Your task to perform on an android device: Open privacy settings Image 0: 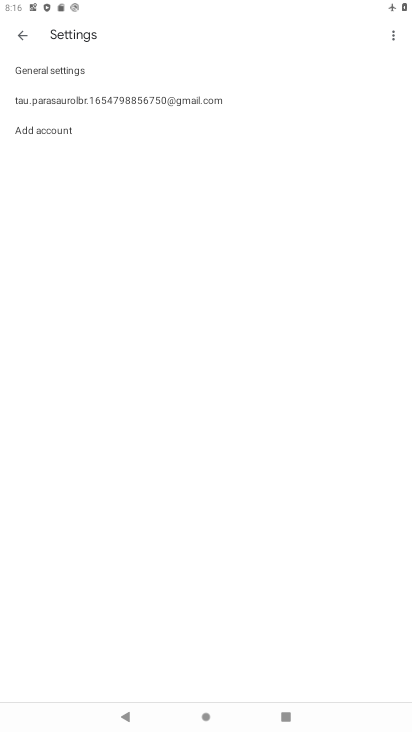
Step 0: press home button
Your task to perform on an android device: Open privacy settings Image 1: 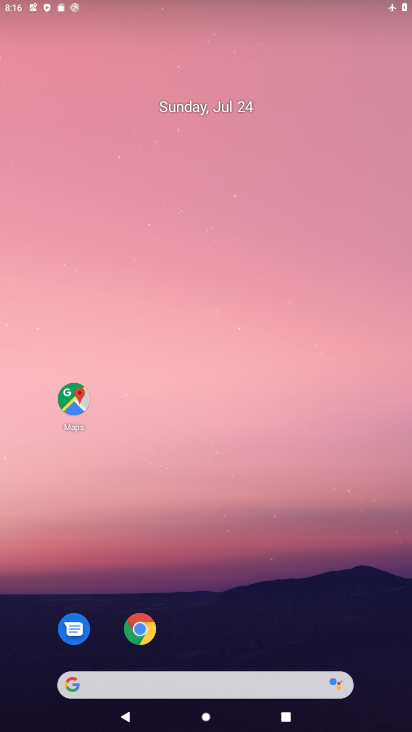
Step 1: drag from (236, 485) to (280, 62)
Your task to perform on an android device: Open privacy settings Image 2: 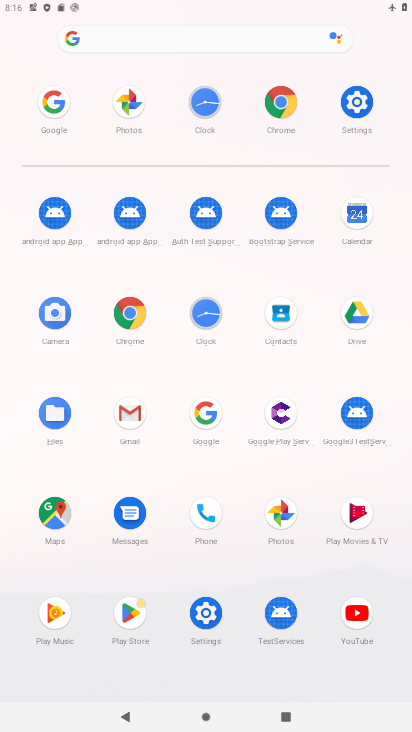
Step 2: click (361, 114)
Your task to perform on an android device: Open privacy settings Image 3: 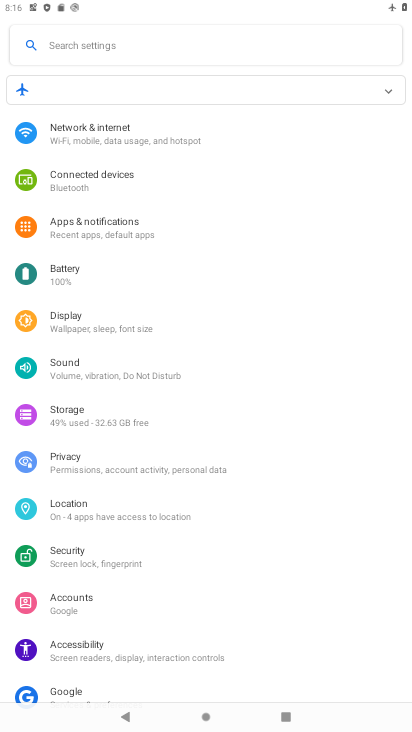
Step 3: click (123, 468)
Your task to perform on an android device: Open privacy settings Image 4: 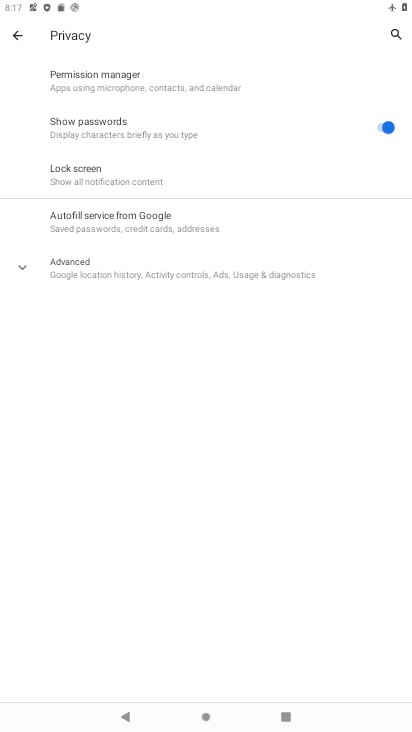
Step 4: task complete